Your task to perform on an android device: open a bookmark in the chrome app Image 0: 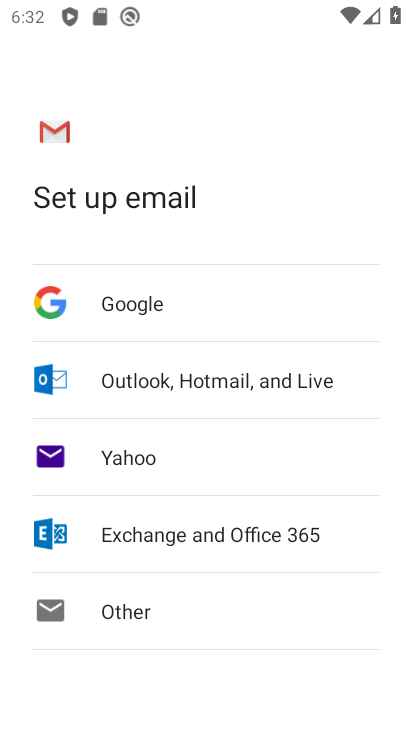
Step 0: press home button
Your task to perform on an android device: open a bookmark in the chrome app Image 1: 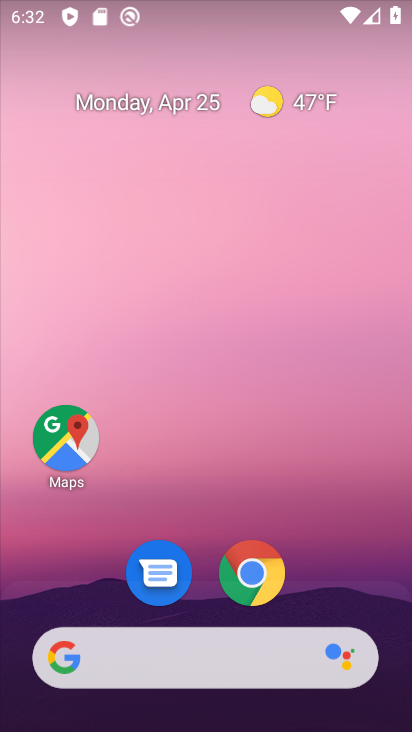
Step 1: click (263, 571)
Your task to perform on an android device: open a bookmark in the chrome app Image 2: 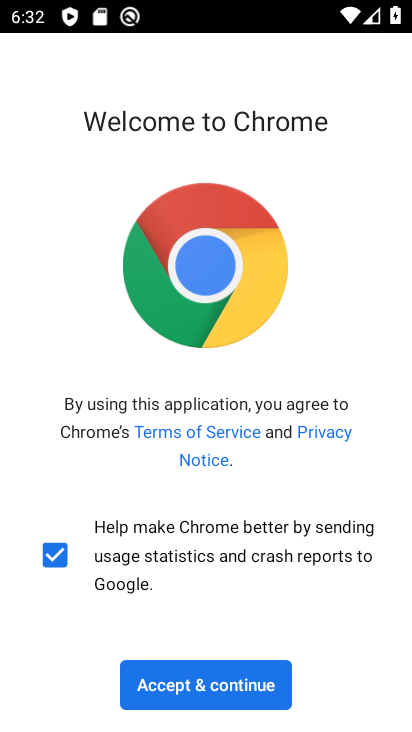
Step 2: click (215, 684)
Your task to perform on an android device: open a bookmark in the chrome app Image 3: 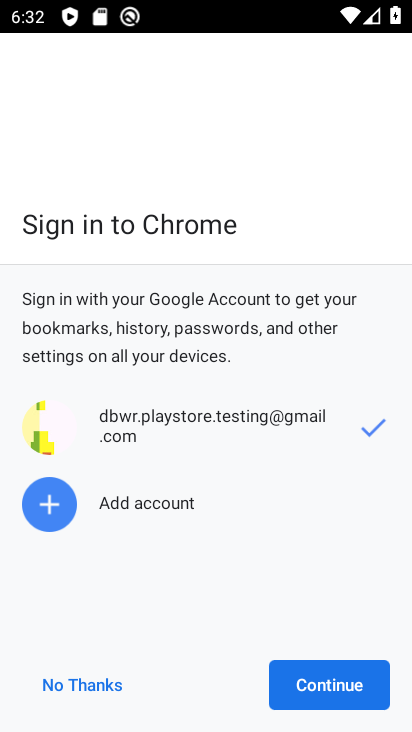
Step 3: click (289, 684)
Your task to perform on an android device: open a bookmark in the chrome app Image 4: 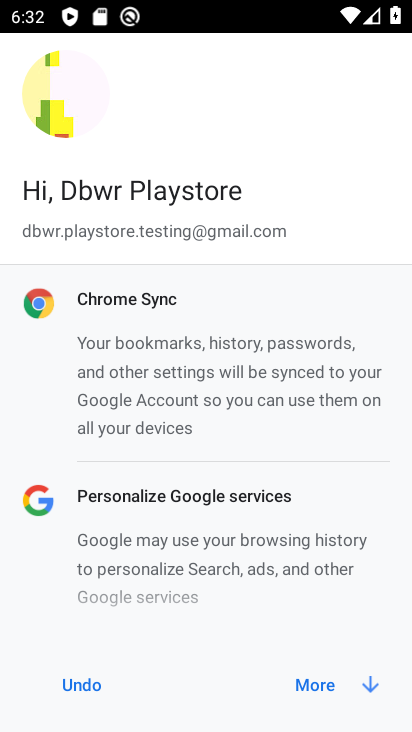
Step 4: click (339, 688)
Your task to perform on an android device: open a bookmark in the chrome app Image 5: 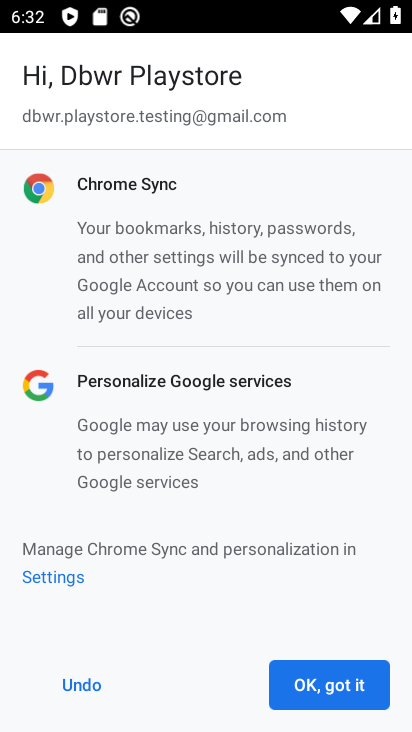
Step 5: click (339, 688)
Your task to perform on an android device: open a bookmark in the chrome app Image 6: 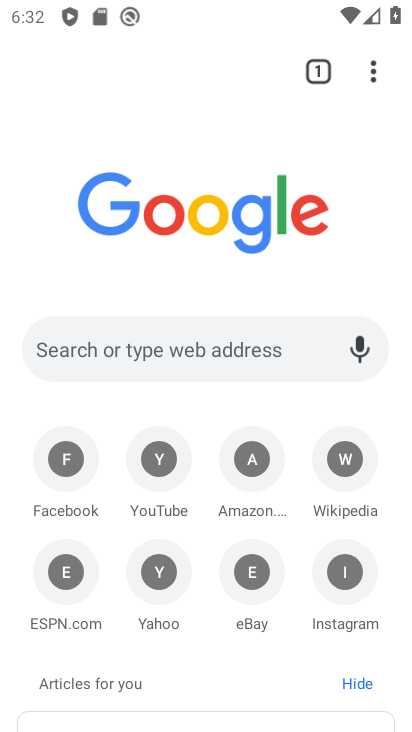
Step 6: click (376, 66)
Your task to perform on an android device: open a bookmark in the chrome app Image 7: 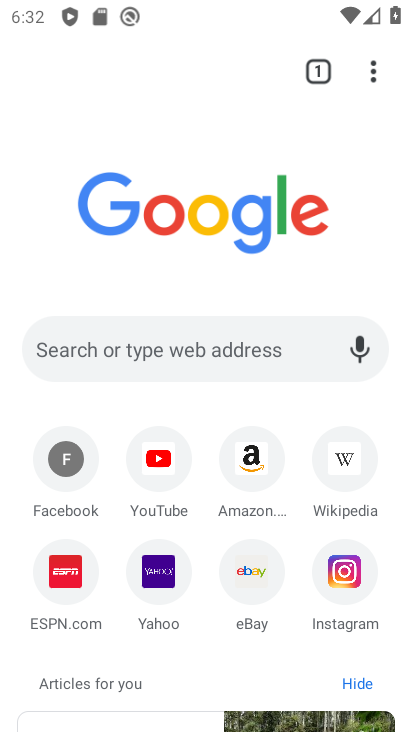
Step 7: click (376, 66)
Your task to perform on an android device: open a bookmark in the chrome app Image 8: 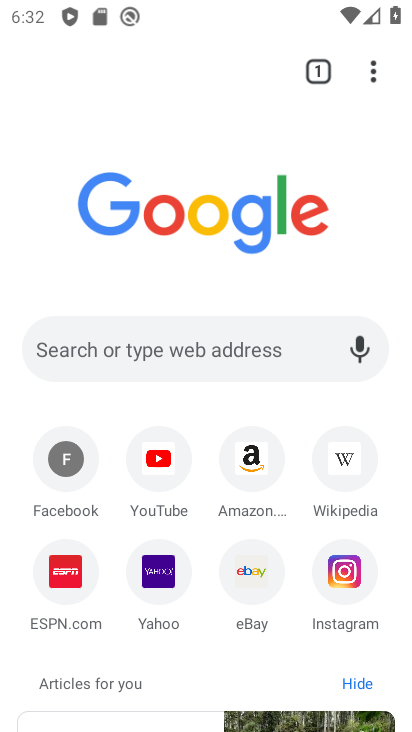
Step 8: click (371, 71)
Your task to perform on an android device: open a bookmark in the chrome app Image 9: 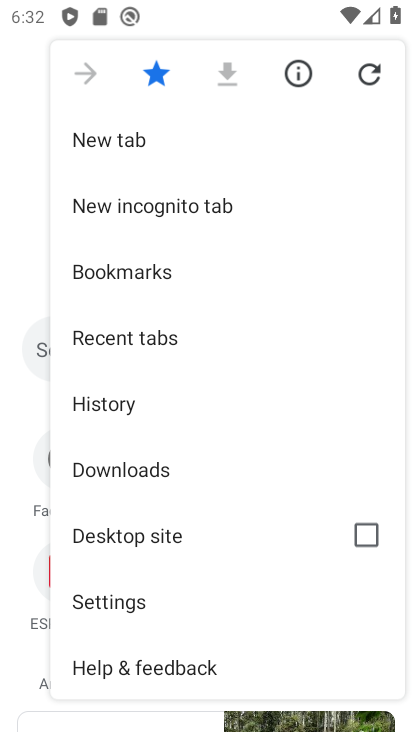
Step 9: click (248, 273)
Your task to perform on an android device: open a bookmark in the chrome app Image 10: 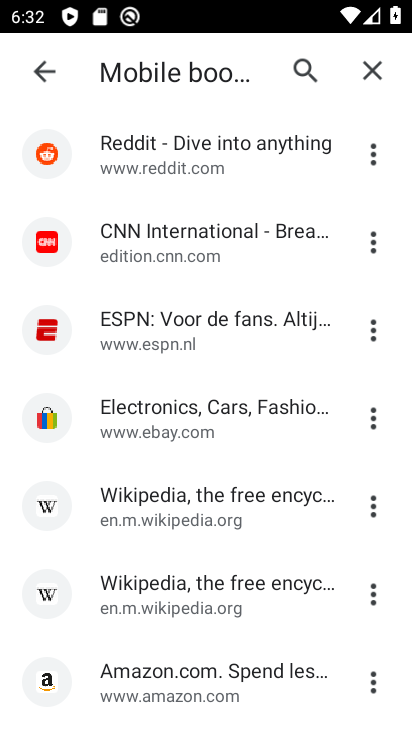
Step 10: click (245, 351)
Your task to perform on an android device: open a bookmark in the chrome app Image 11: 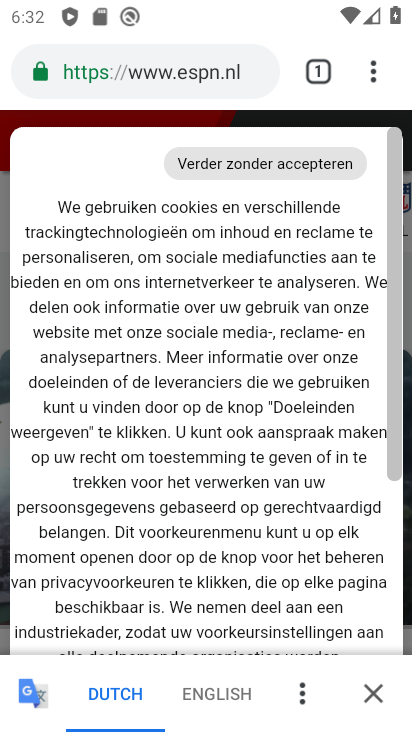
Step 11: task complete